Your task to perform on an android device: Open Android settings Image 0: 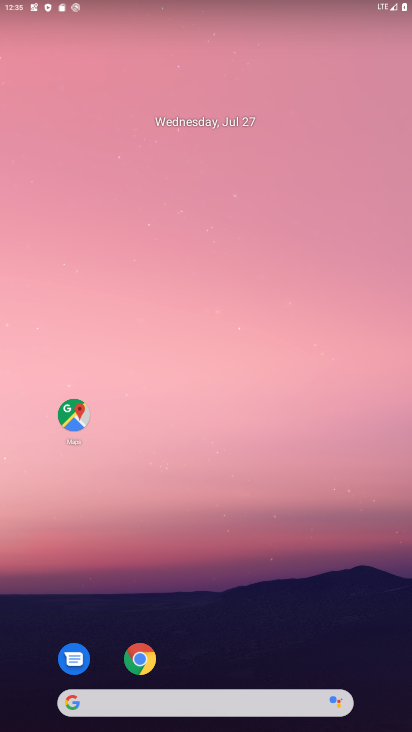
Step 0: drag from (203, 670) to (268, 390)
Your task to perform on an android device: Open Android settings Image 1: 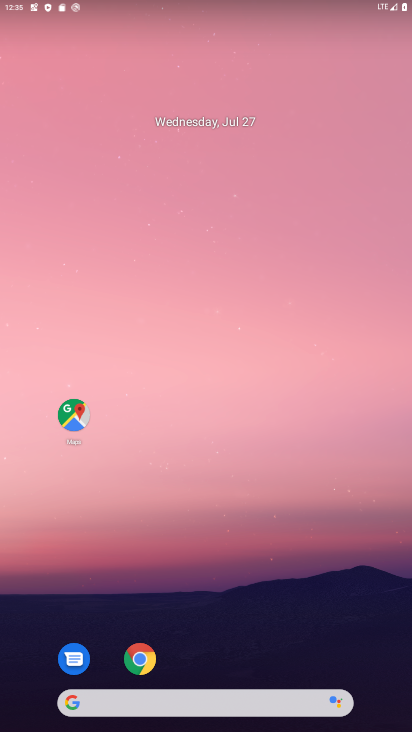
Step 1: drag from (194, 683) to (293, 232)
Your task to perform on an android device: Open Android settings Image 2: 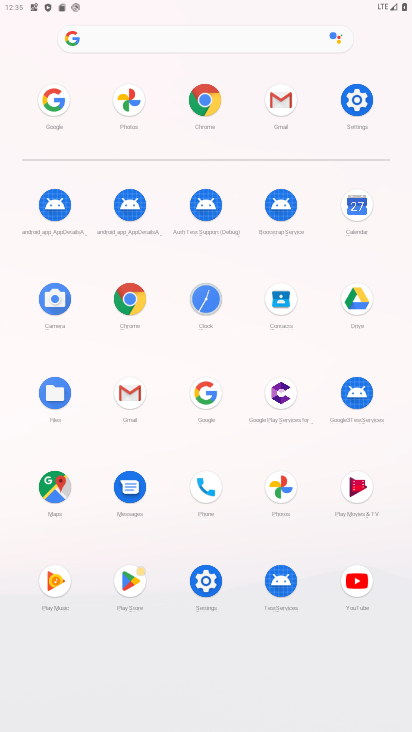
Step 2: click (205, 579)
Your task to perform on an android device: Open Android settings Image 3: 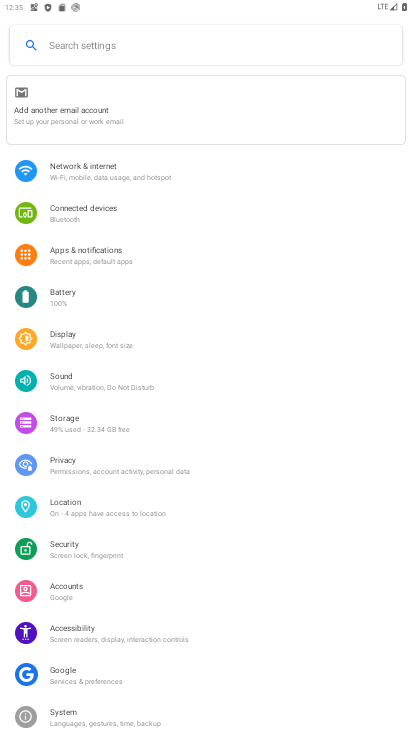
Step 3: click (172, 29)
Your task to perform on an android device: Open Android settings Image 4: 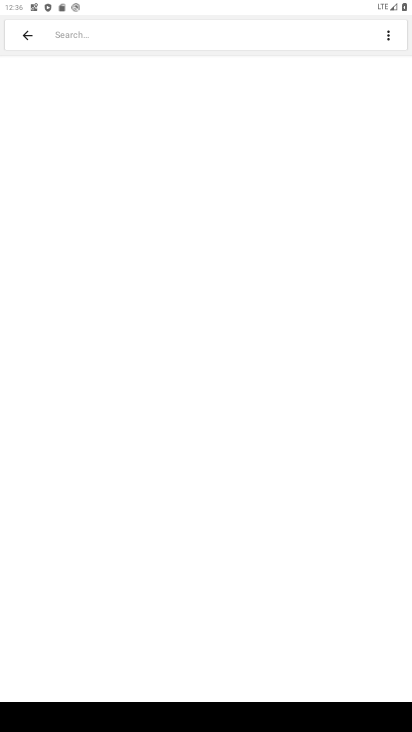
Step 4: type "android setting"
Your task to perform on an android device: Open Android settings Image 5: 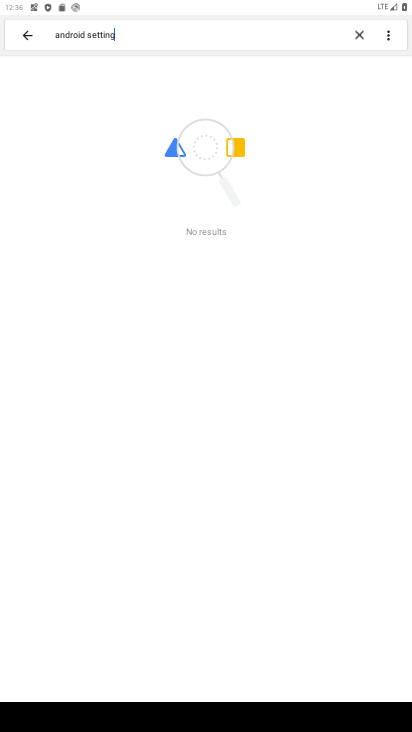
Step 5: click (31, 35)
Your task to perform on an android device: Open Android settings Image 6: 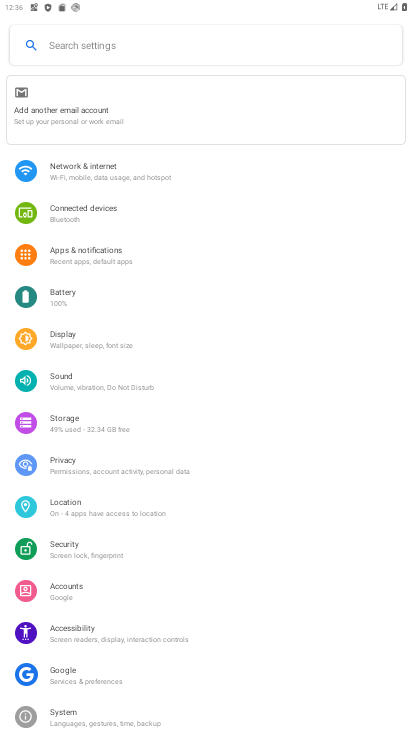
Step 6: task complete